Your task to perform on an android device: star an email in the gmail app Image 0: 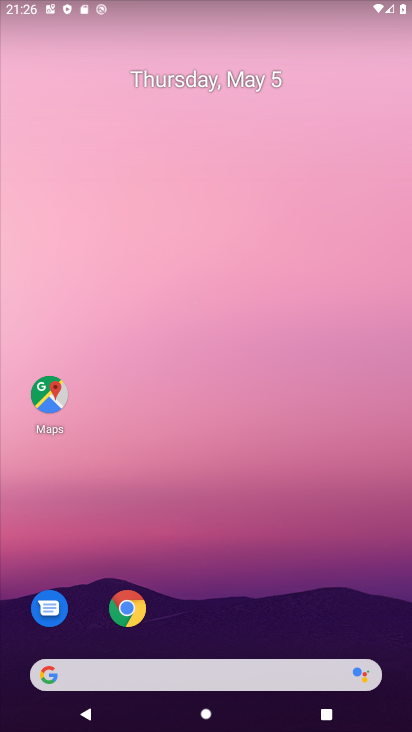
Step 0: drag from (314, 671) to (301, 31)
Your task to perform on an android device: star an email in the gmail app Image 1: 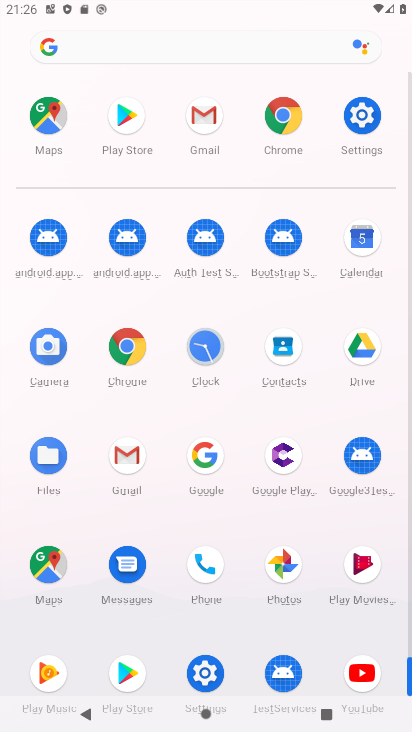
Step 1: click (133, 460)
Your task to perform on an android device: star an email in the gmail app Image 2: 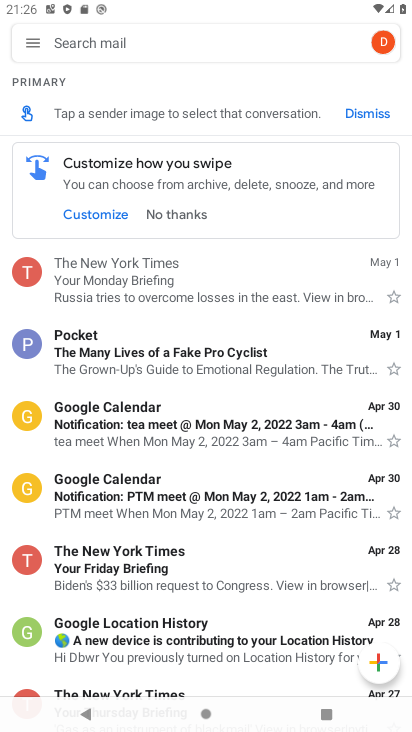
Step 2: click (30, 48)
Your task to perform on an android device: star an email in the gmail app Image 3: 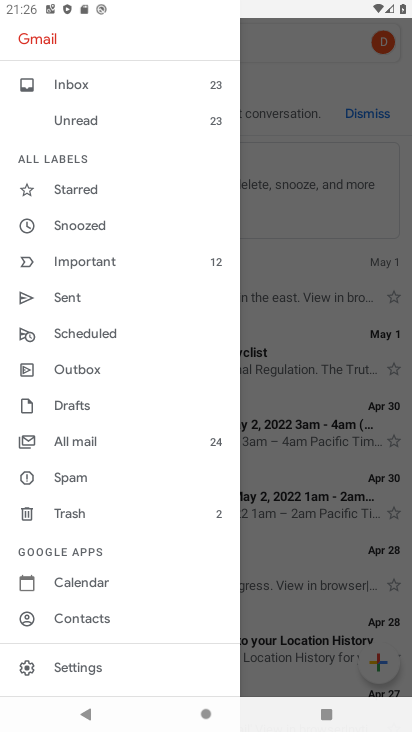
Step 3: click (99, 187)
Your task to perform on an android device: star an email in the gmail app Image 4: 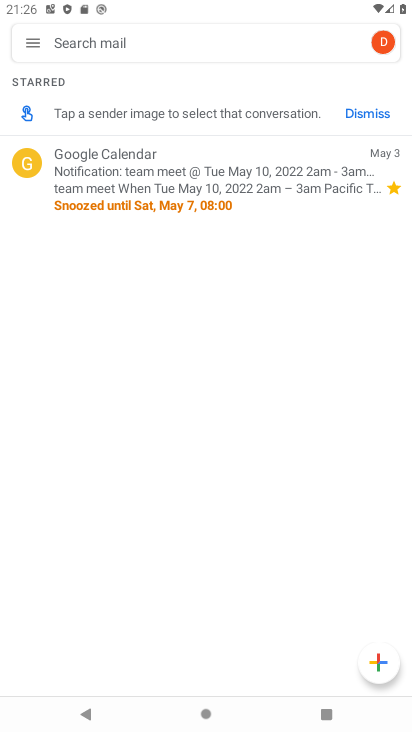
Step 4: press back button
Your task to perform on an android device: star an email in the gmail app Image 5: 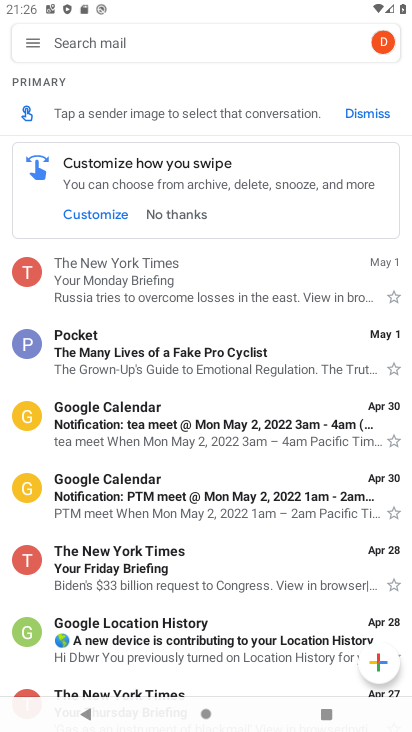
Step 5: click (391, 293)
Your task to perform on an android device: star an email in the gmail app Image 6: 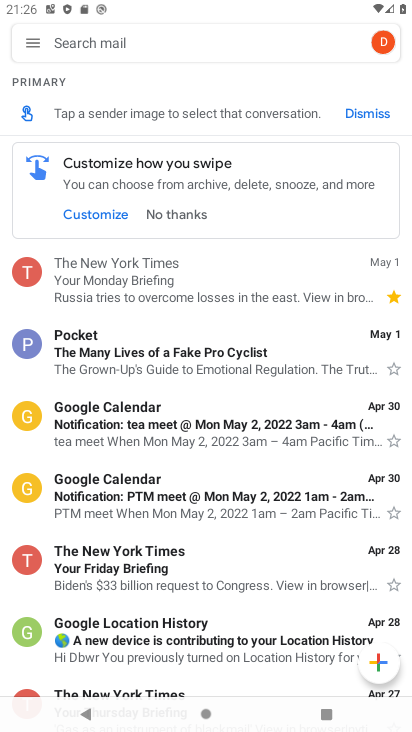
Step 6: task complete